Your task to perform on an android device: change alarm snooze length Image 0: 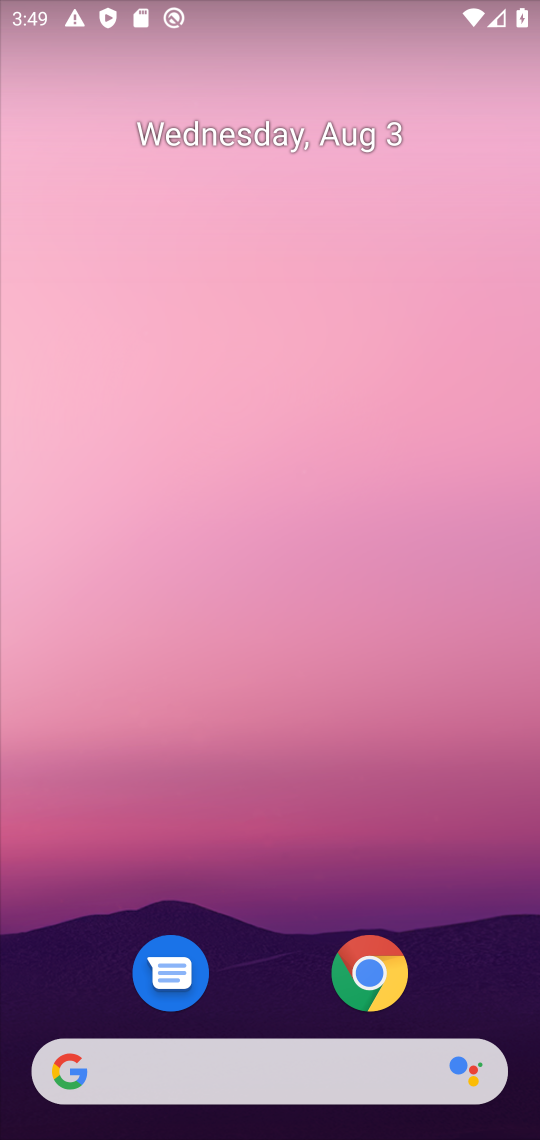
Step 0: drag from (327, 727) to (262, 15)
Your task to perform on an android device: change alarm snooze length Image 1: 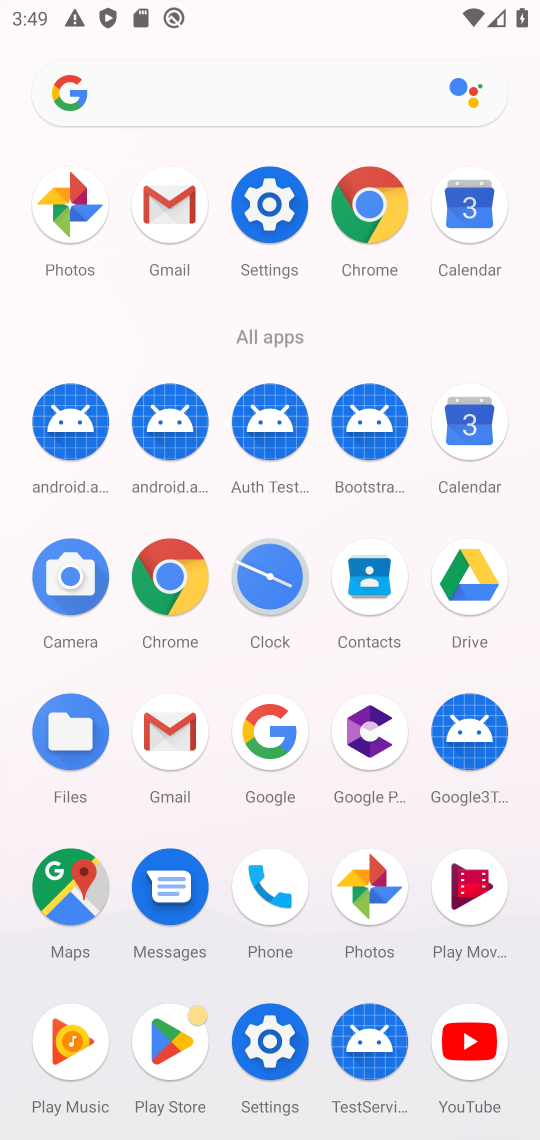
Step 1: click (264, 590)
Your task to perform on an android device: change alarm snooze length Image 2: 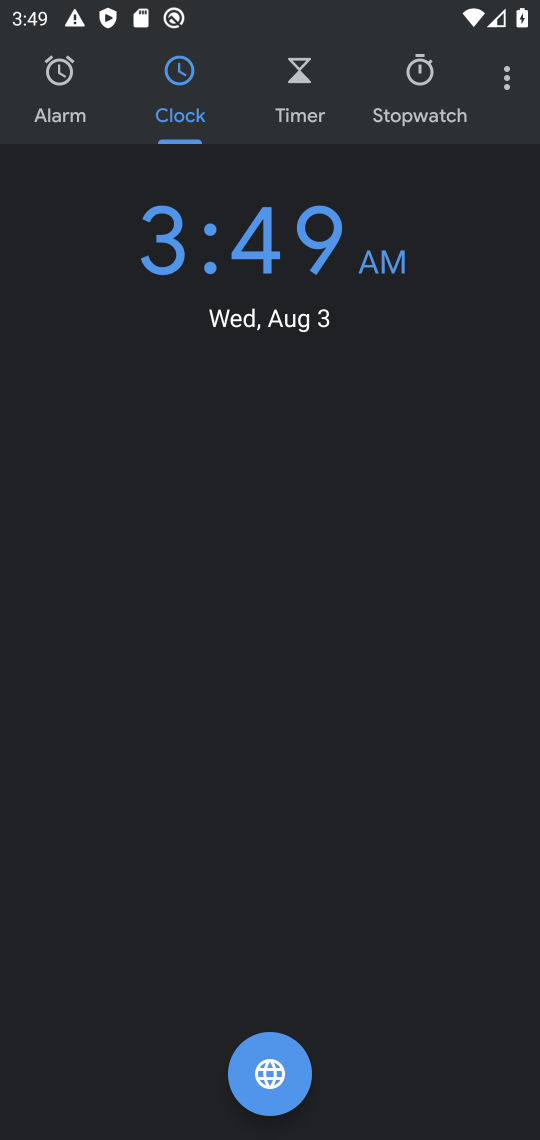
Step 2: click (510, 88)
Your task to perform on an android device: change alarm snooze length Image 3: 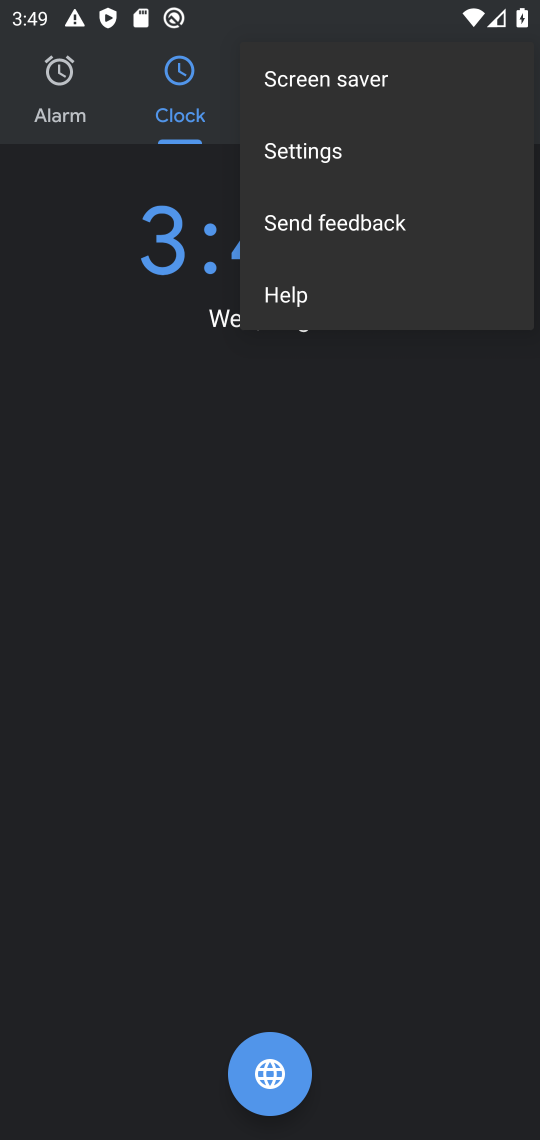
Step 3: click (345, 158)
Your task to perform on an android device: change alarm snooze length Image 4: 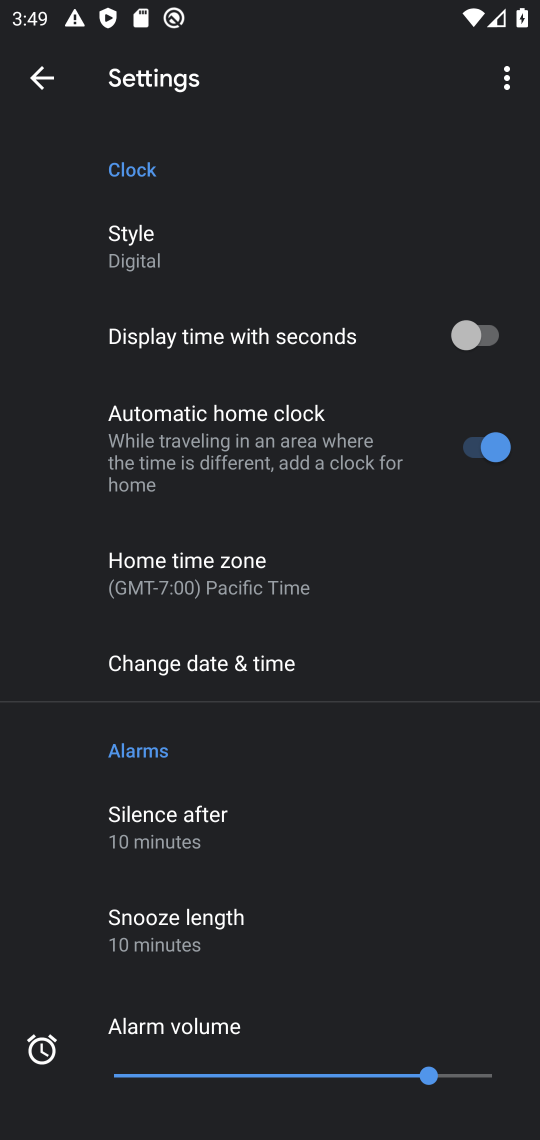
Step 4: click (230, 924)
Your task to perform on an android device: change alarm snooze length Image 5: 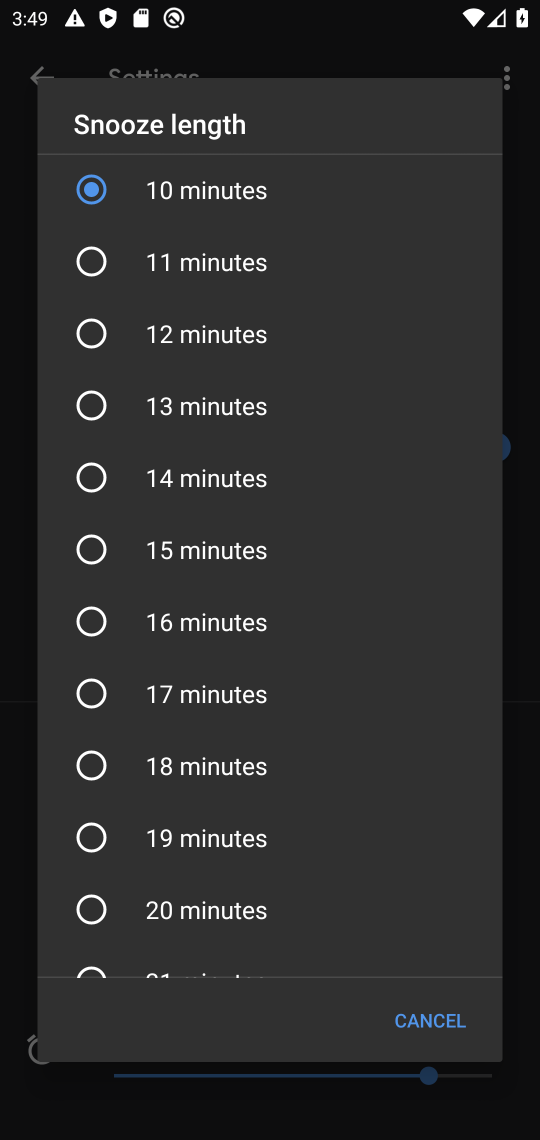
Step 5: click (86, 258)
Your task to perform on an android device: change alarm snooze length Image 6: 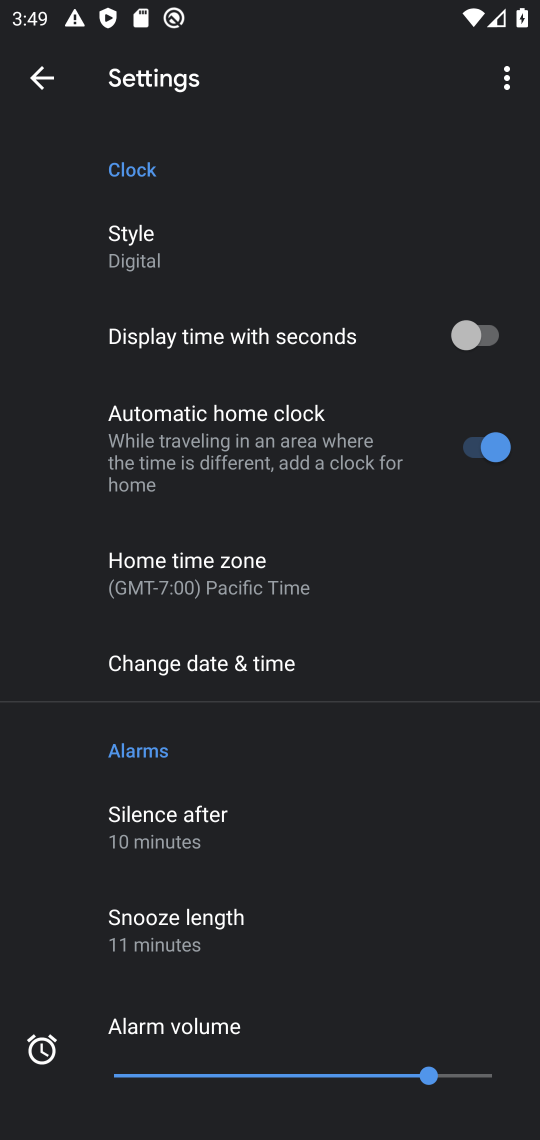
Step 6: task complete